Your task to perform on an android device: What's on my calendar tomorrow? Image 0: 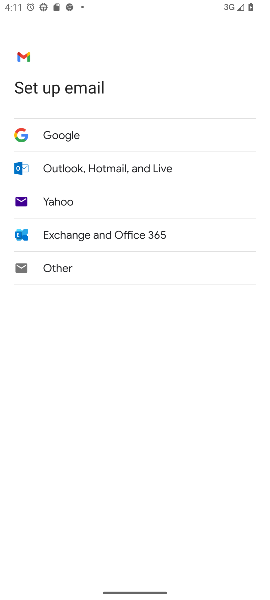
Step 0: press home button
Your task to perform on an android device: What's on my calendar tomorrow? Image 1: 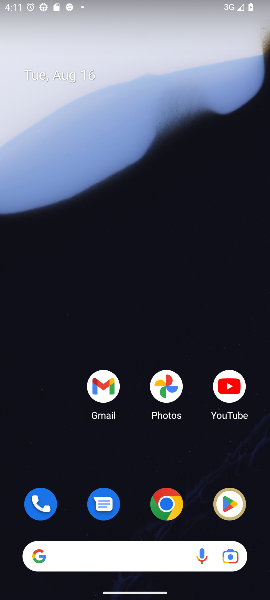
Step 1: drag from (134, 468) to (73, 35)
Your task to perform on an android device: What's on my calendar tomorrow? Image 2: 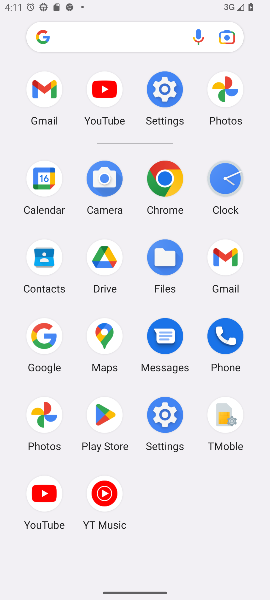
Step 2: click (47, 175)
Your task to perform on an android device: What's on my calendar tomorrow? Image 3: 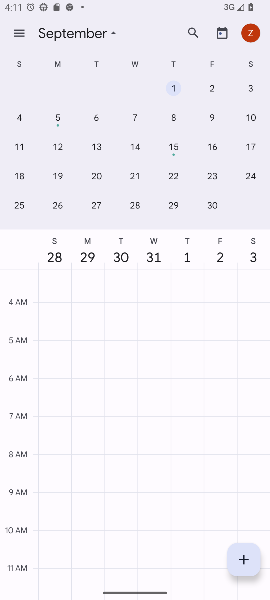
Step 3: click (20, 30)
Your task to perform on an android device: What's on my calendar tomorrow? Image 4: 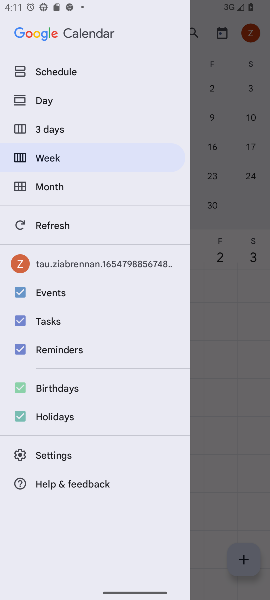
Step 4: click (40, 97)
Your task to perform on an android device: What's on my calendar tomorrow? Image 5: 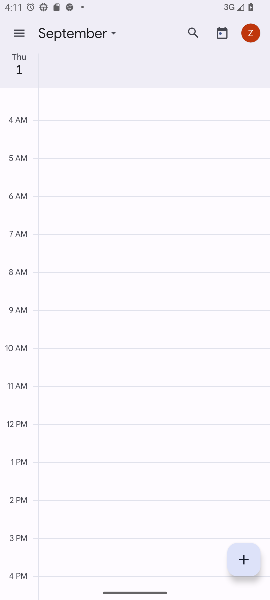
Step 5: click (111, 35)
Your task to perform on an android device: What's on my calendar tomorrow? Image 6: 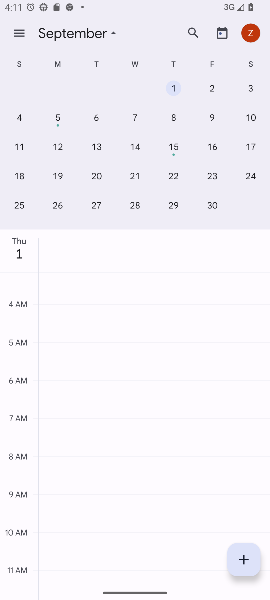
Step 6: drag from (27, 146) to (241, 195)
Your task to perform on an android device: What's on my calendar tomorrow? Image 7: 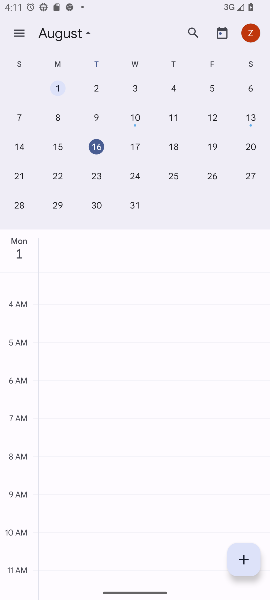
Step 7: click (136, 146)
Your task to perform on an android device: What's on my calendar tomorrow? Image 8: 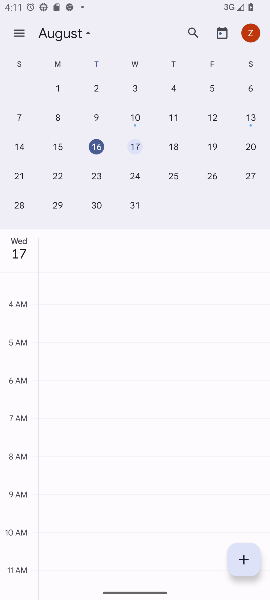
Step 8: click (137, 144)
Your task to perform on an android device: What's on my calendar tomorrow? Image 9: 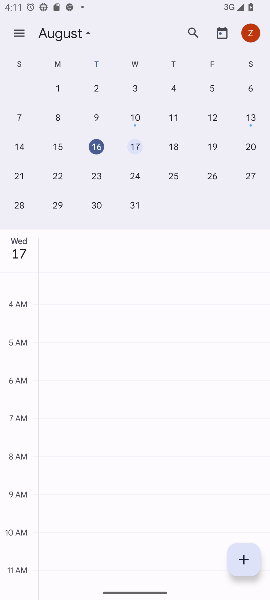
Step 9: click (132, 143)
Your task to perform on an android device: What's on my calendar tomorrow? Image 10: 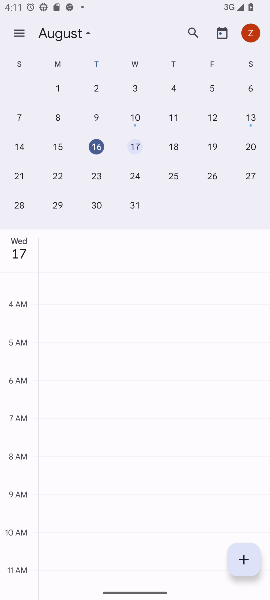
Step 10: click (132, 143)
Your task to perform on an android device: What's on my calendar tomorrow? Image 11: 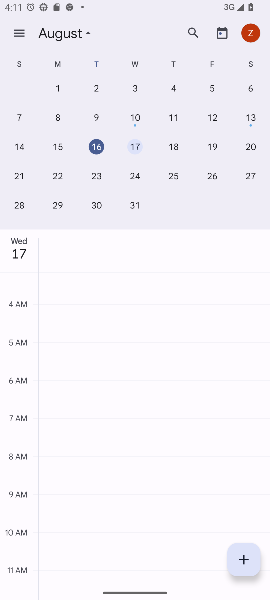
Step 11: click (132, 143)
Your task to perform on an android device: What's on my calendar tomorrow? Image 12: 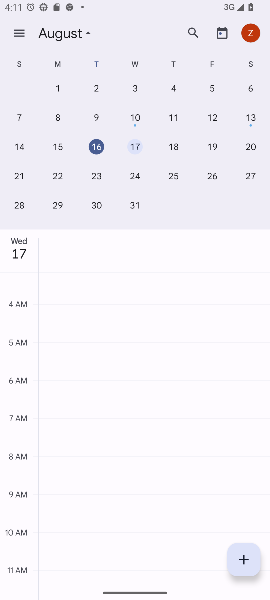
Step 12: click (132, 143)
Your task to perform on an android device: What's on my calendar tomorrow? Image 13: 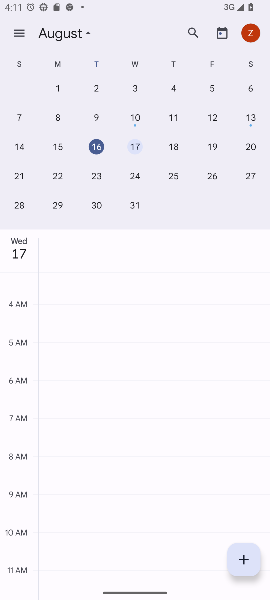
Step 13: click (132, 143)
Your task to perform on an android device: What's on my calendar tomorrow? Image 14: 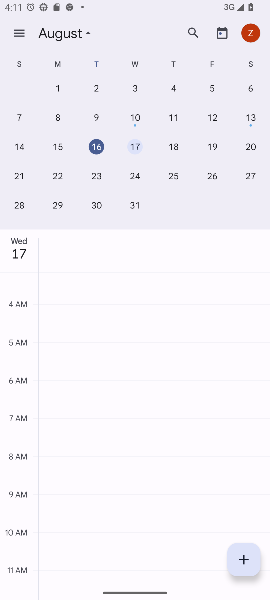
Step 14: click (132, 143)
Your task to perform on an android device: What's on my calendar tomorrow? Image 15: 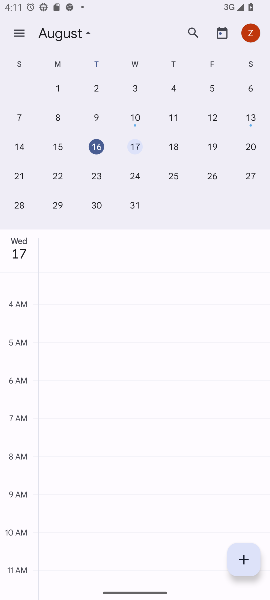
Step 15: click (132, 143)
Your task to perform on an android device: What's on my calendar tomorrow? Image 16: 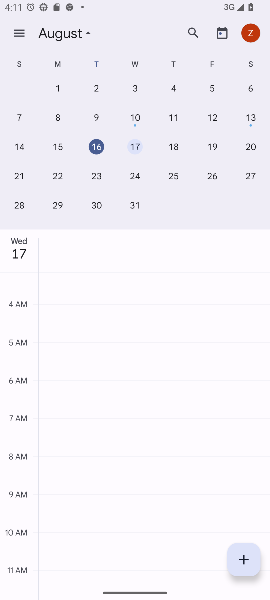
Step 16: task complete